Your task to perform on an android device: Open Reddit.com Image 0: 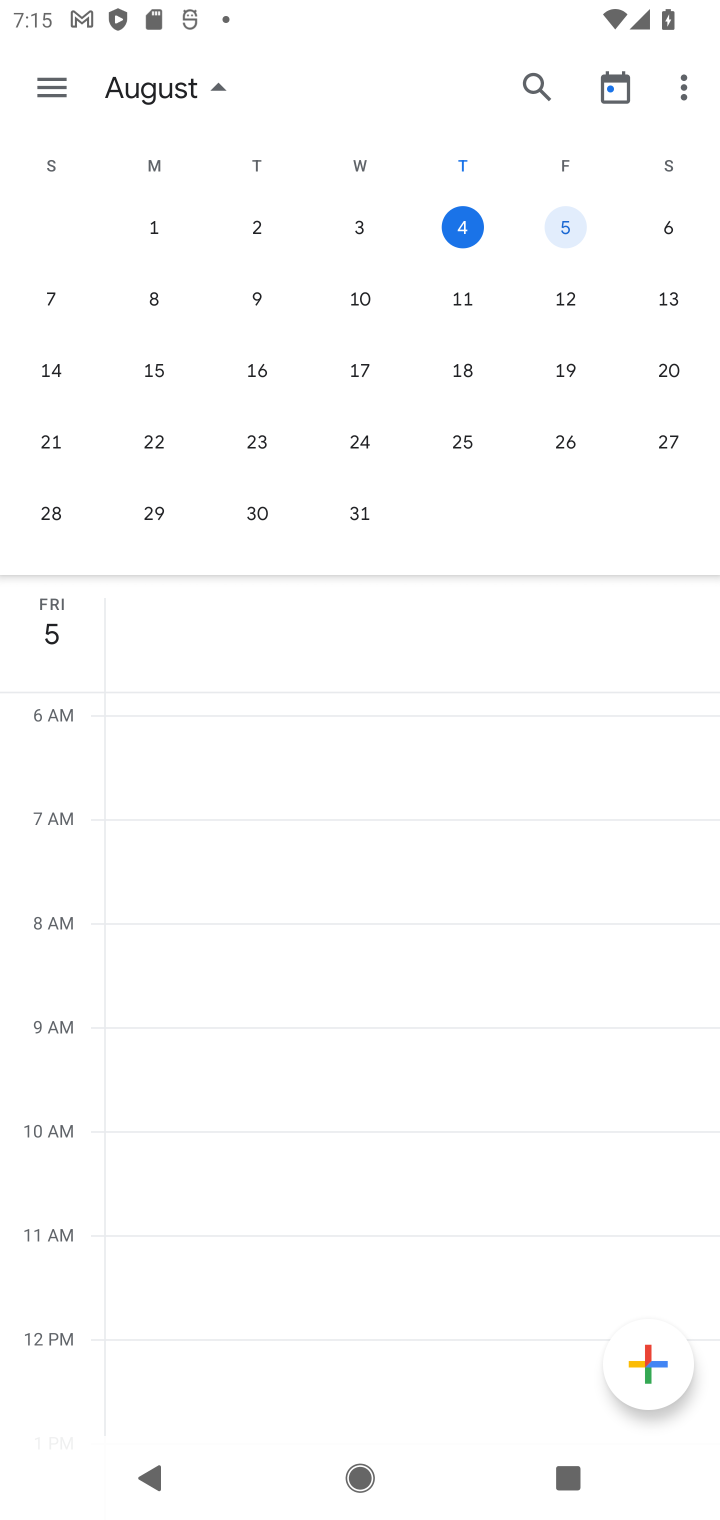
Step 0: press home button
Your task to perform on an android device: Open Reddit.com Image 1: 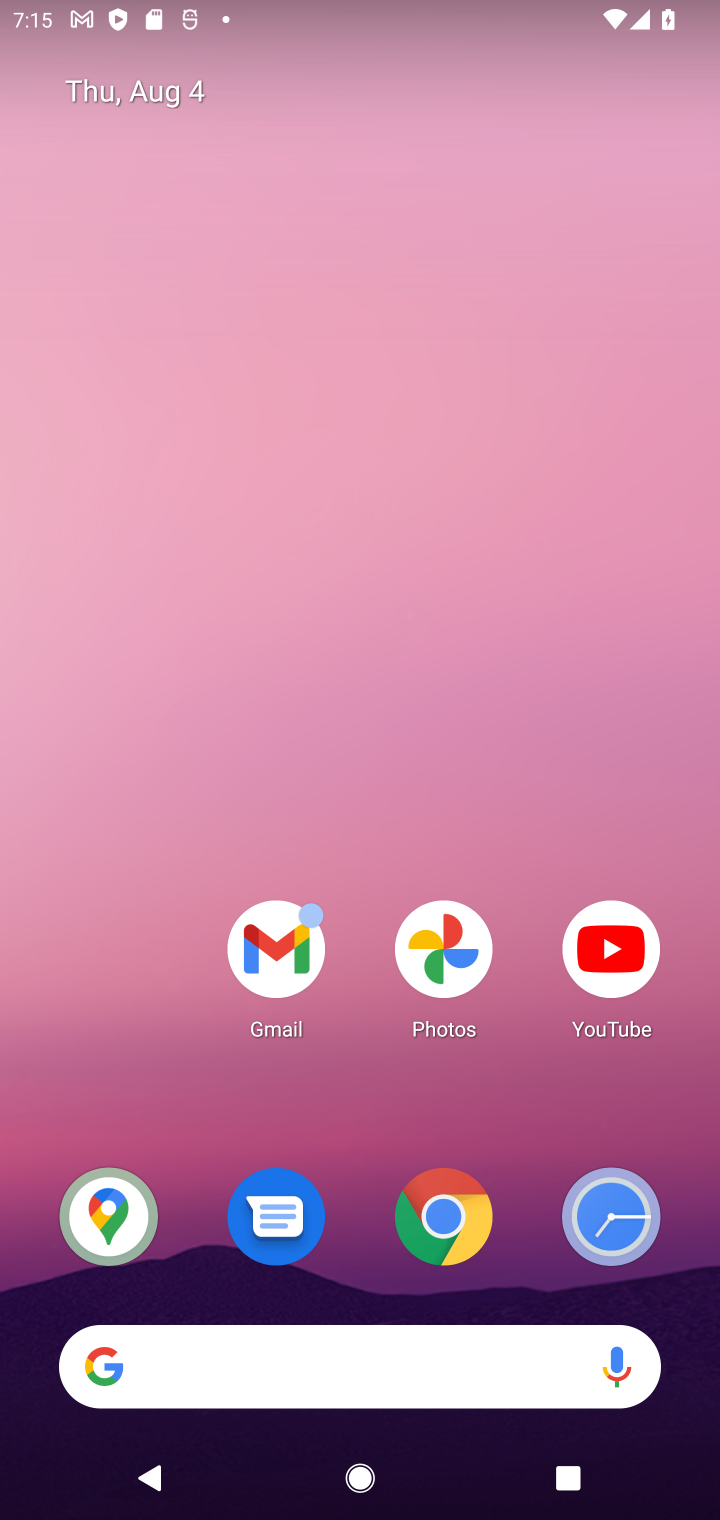
Step 1: drag from (302, 1145) to (254, 0)
Your task to perform on an android device: Open Reddit.com Image 2: 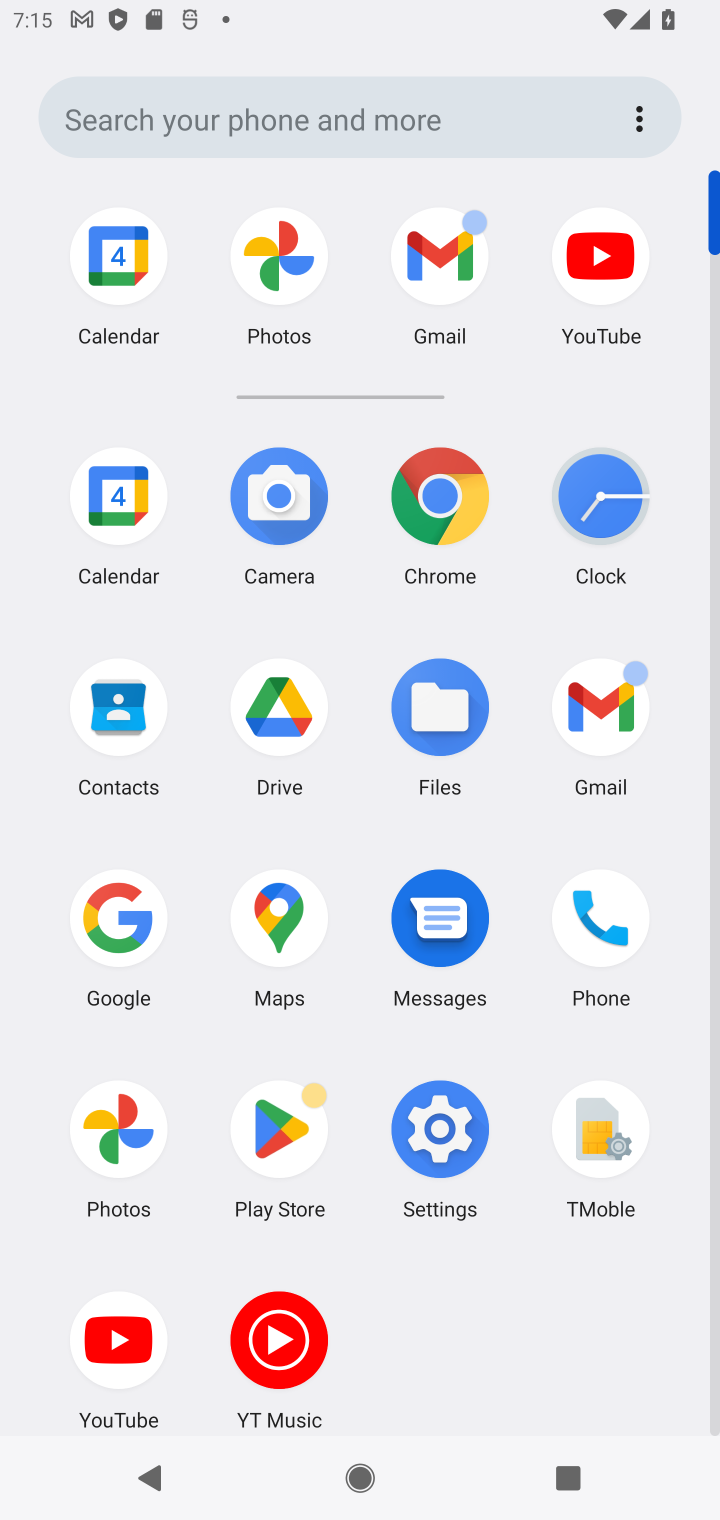
Step 2: click (440, 510)
Your task to perform on an android device: Open Reddit.com Image 3: 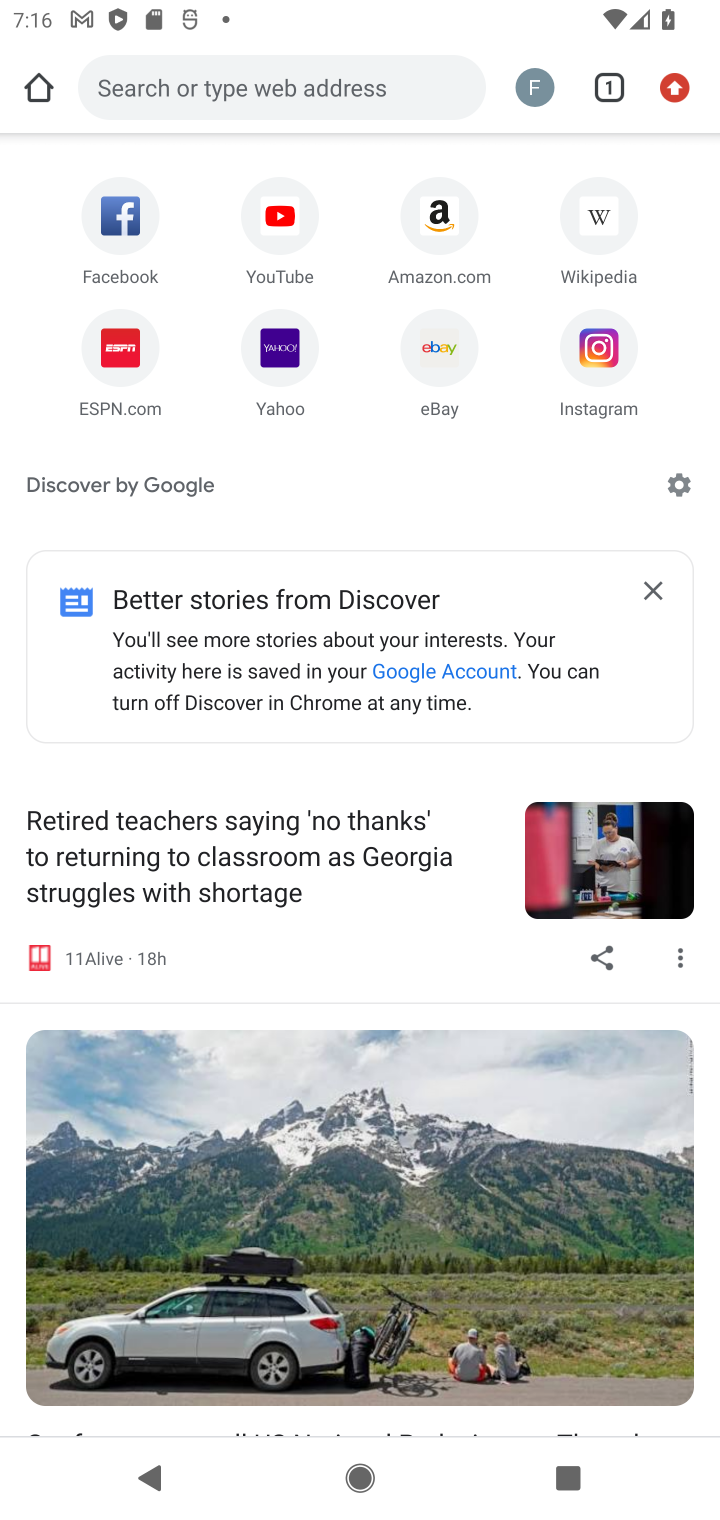
Step 3: click (318, 75)
Your task to perform on an android device: Open Reddit.com Image 4: 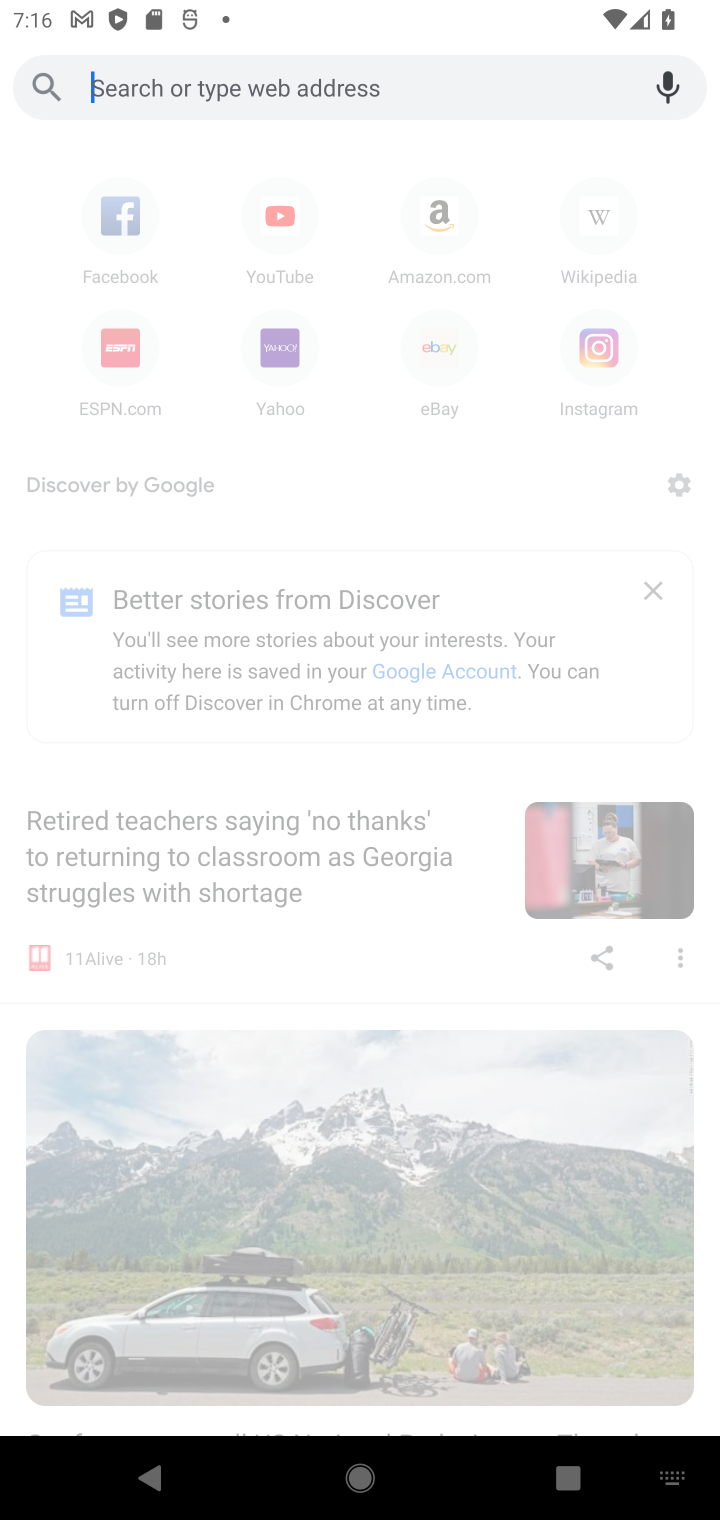
Step 4: type "Reddit.com"
Your task to perform on an android device: Open Reddit.com Image 5: 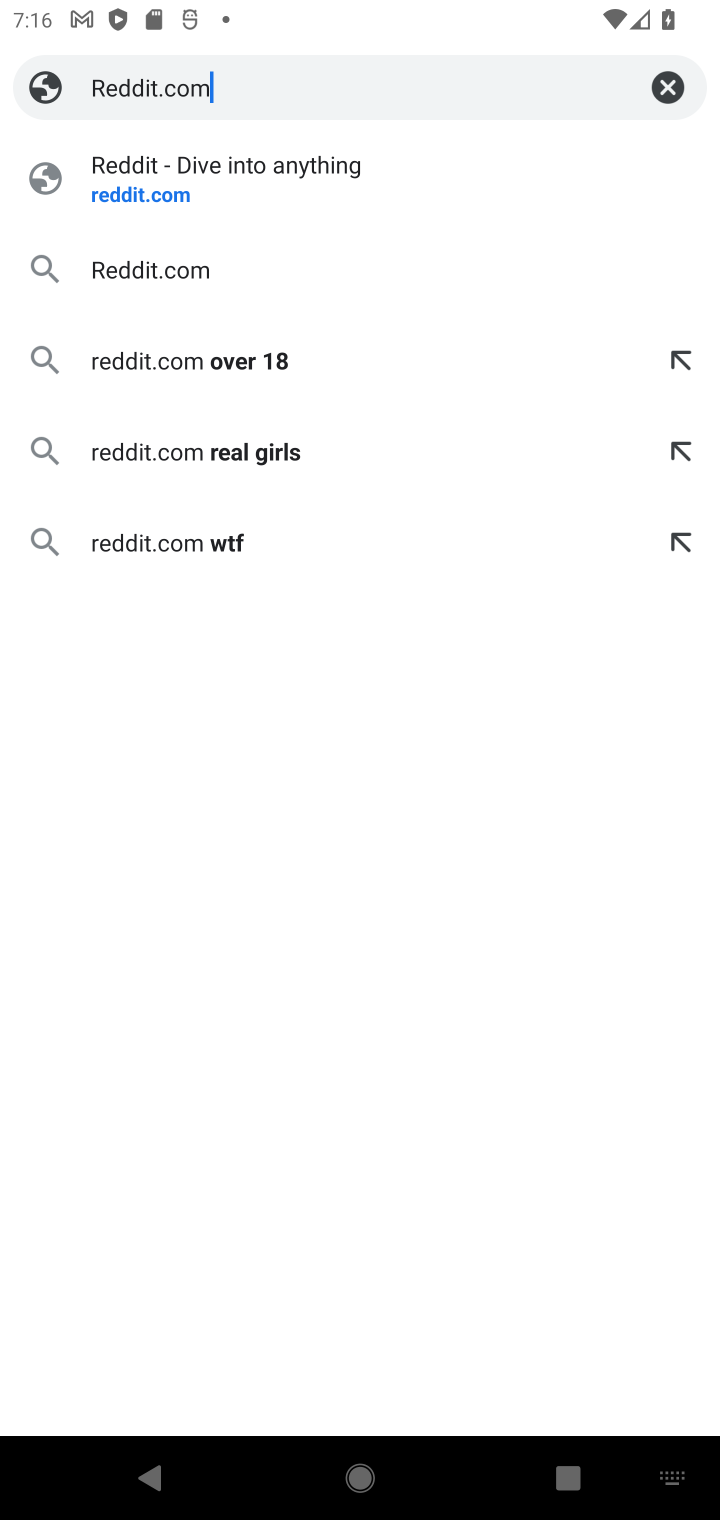
Step 5: click (165, 153)
Your task to perform on an android device: Open Reddit.com Image 6: 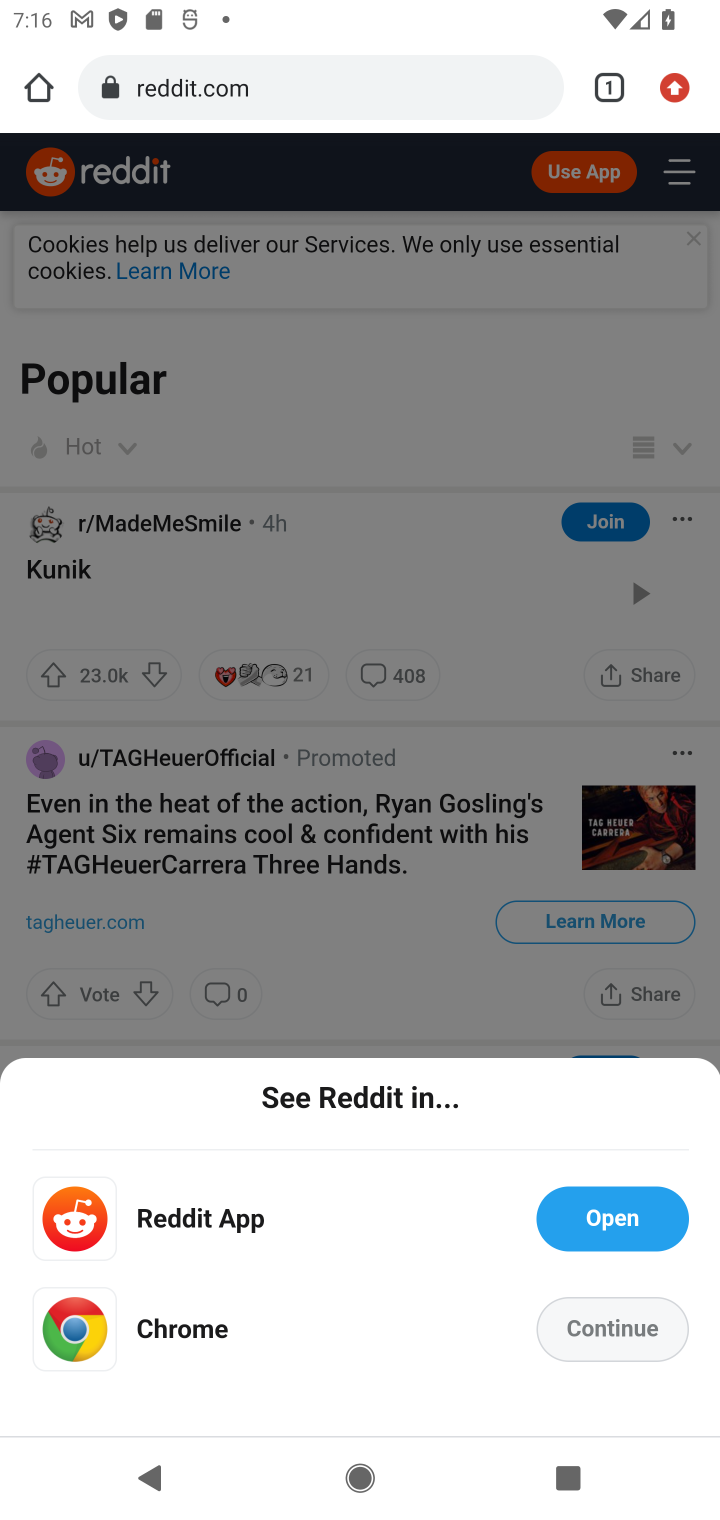
Step 6: task complete